Your task to perform on an android device: Show me recent news Image 0: 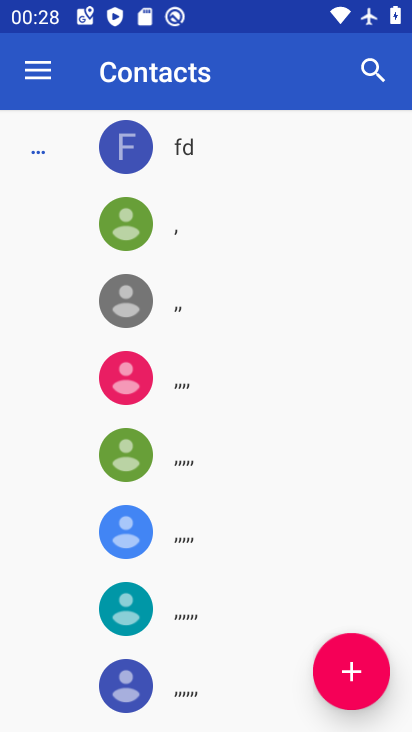
Step 0: press home button
Your task to perform on an android device: Show me recent news Image 1: 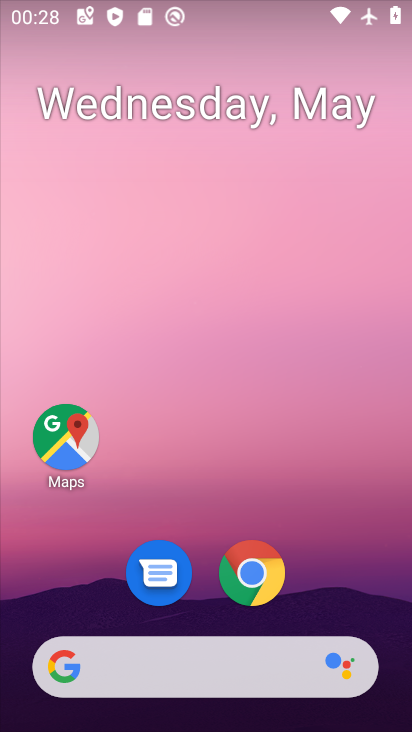
Step 1: drag from (197, 599) to (216, 201)
Your task to perform on an android device: Show me recent news Image 2: 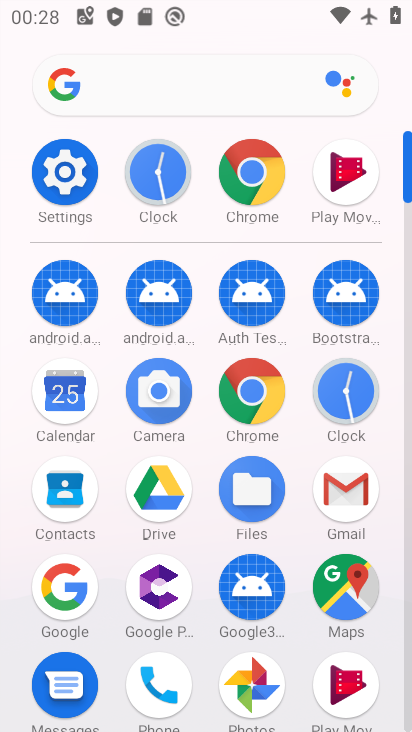
Step 2: click (247, 682)
Your task to perform on an android device: Show me recent news Image 3: 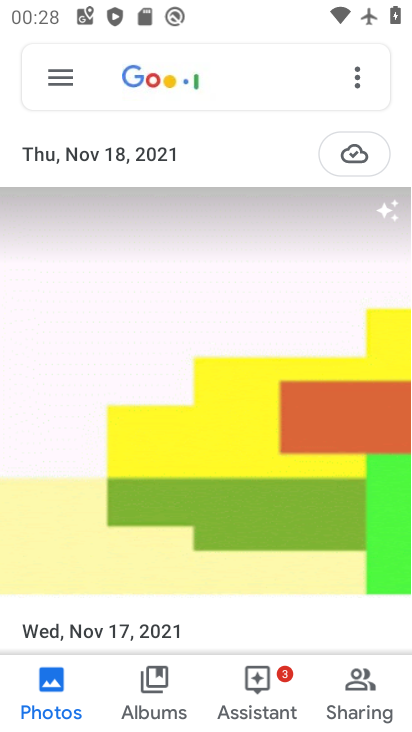
Step 3: press home button
Your task to perform on an android device: Show me recent news Image 4: 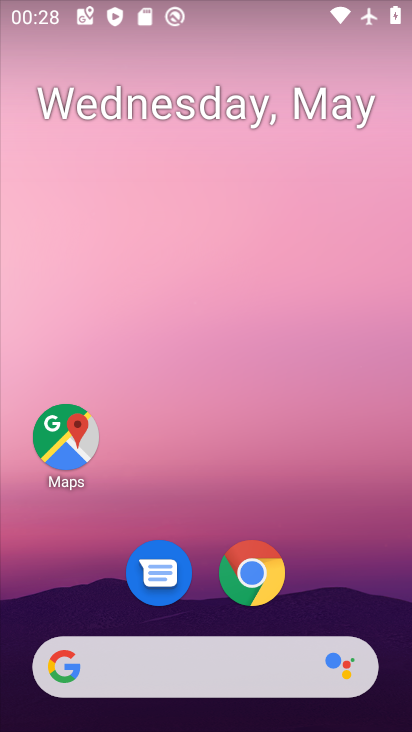
Step 4: click (244, 585)
Your task to perform on an android device: Show me recent news Image 5: 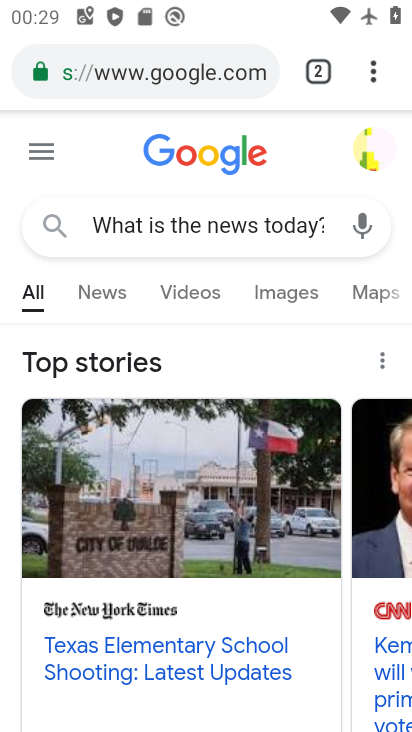
Step 5: click (383, 60)
Your task to perform on an android device: Show me recent news Image 6: 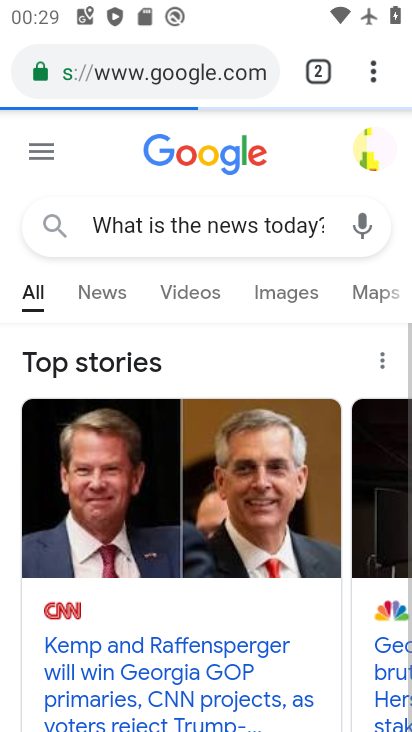
Step 6: click (372, 64)
Your task to perform on an android device: Show me recent news Image 7: 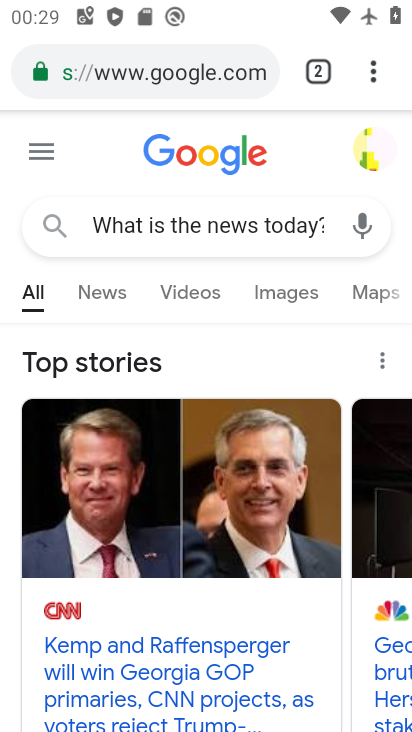
Step 7: click (366, 63)
Your task to perform on an android device: Show me recent news Image 8: 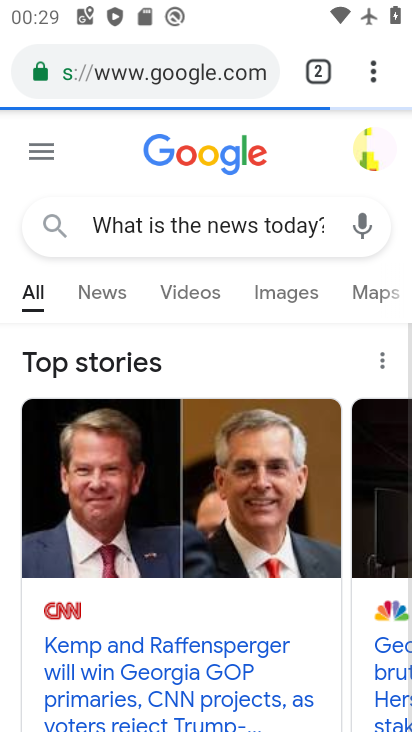
Step 8: click (368, 69)
Your task to perform on an android device: Show me recent news Image 9: 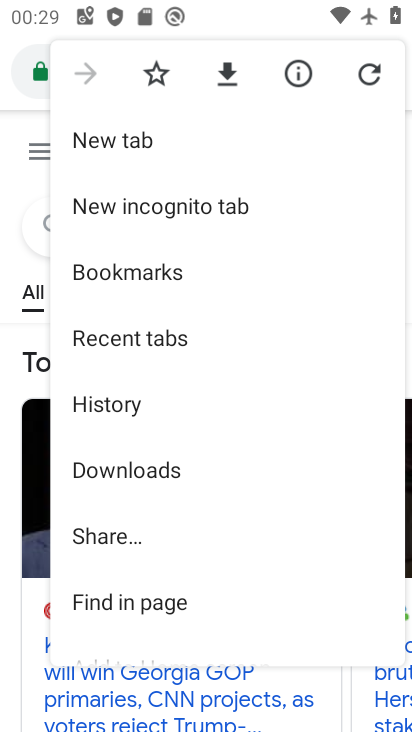
Step 9: click (98, 140)
Your task to perform on an android device: Show me recent news Image 10: 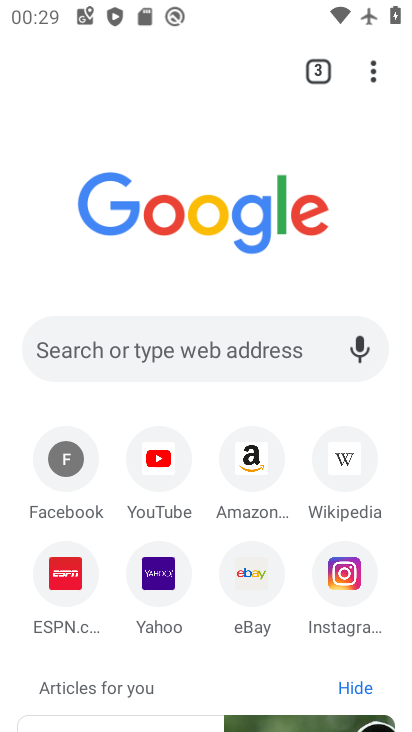
Step 10: click (230, 312)
Your task to perform on an android device: Show me recent news Image 11: 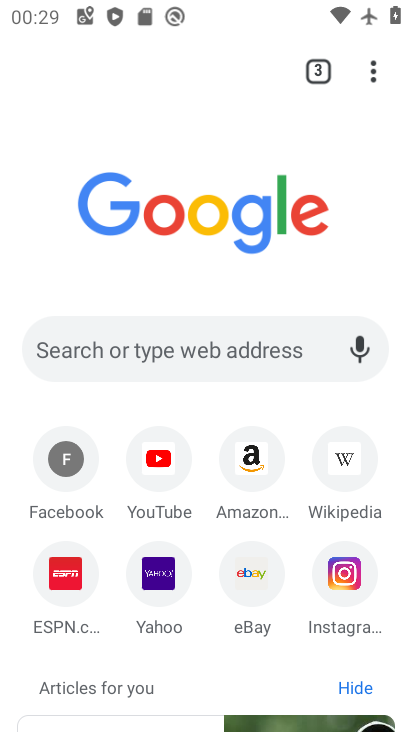
Step 11: click (225, 343)
Your task to perform on an android device: Show me recent news Image 12: 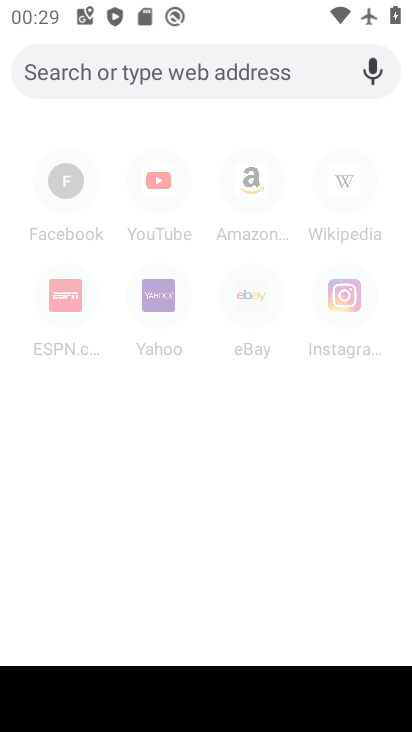
Step 12: type "What is the news today?"
Your task to perform on an android device: Show me recent news Image 13: 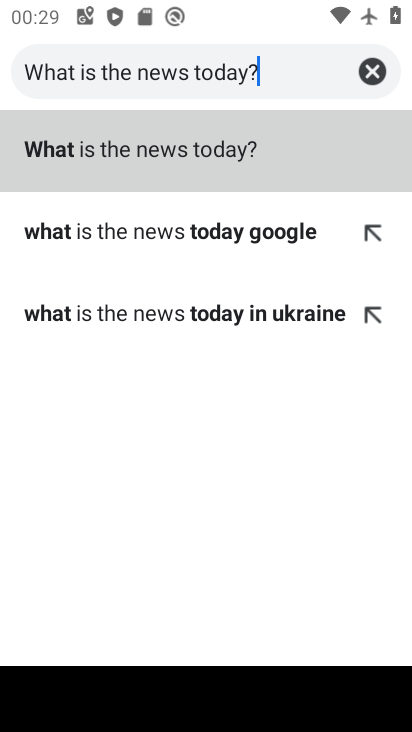
Step 13: click (168, 152)
Your task to perform on an android device: Show me recent news Image 14: 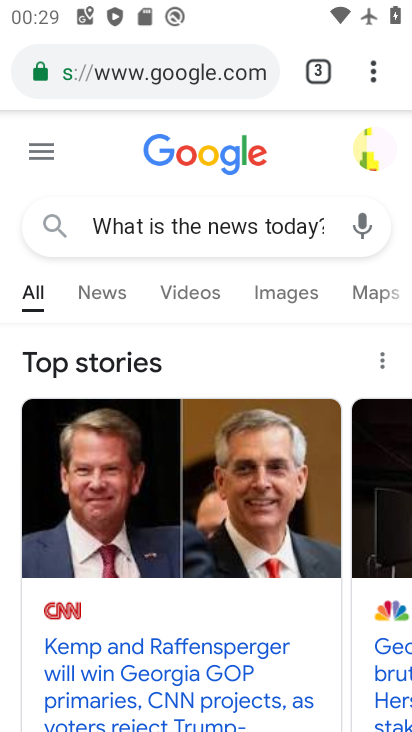
Step 14: task complete